Your task to perform on an android device: uninstall "Expedia: Hotels, Flights & Car" Image 0: 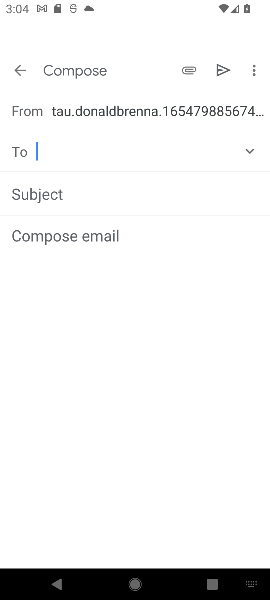
Step 0: press home button
Your task to perform on an android device: uninstall "Expedia: Hotels, Flights & Car" Image 1: 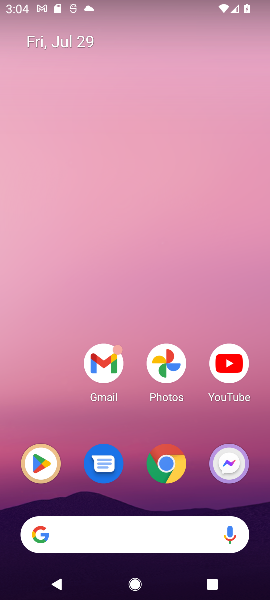
Step 1: drag from (91, 532) to (161, 38)
Your task to perform on an android device: uninstall "Expedia: Hotels, Flights & Car" Image 2: 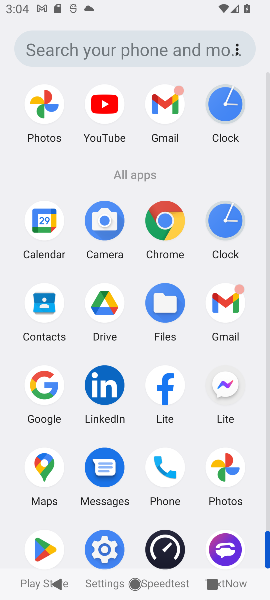
Step 2: click (47, 549)
Your task to perform on an android device: uninstall "Expedia: Hotels, Flights & Car" Image 3: 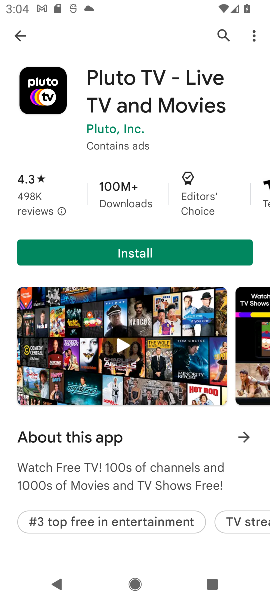
Step 3: task complete